Your task to perform on an android device: remove spam from my inbox in the gmail app Image 0: 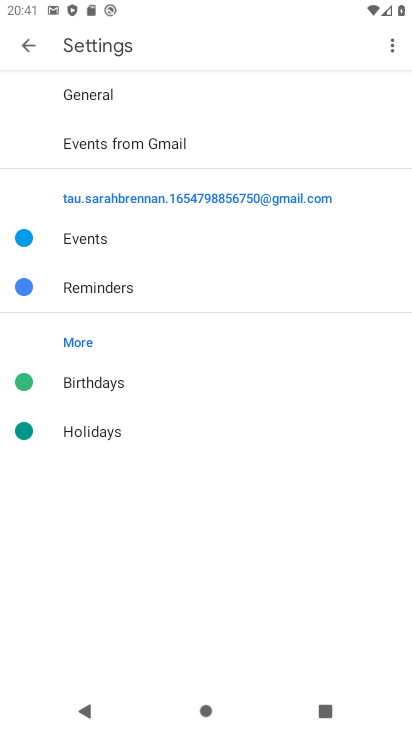
Step 0: press home button
Your task to perform on an android device: remove spam from my inbox in the gmail app Image 1: 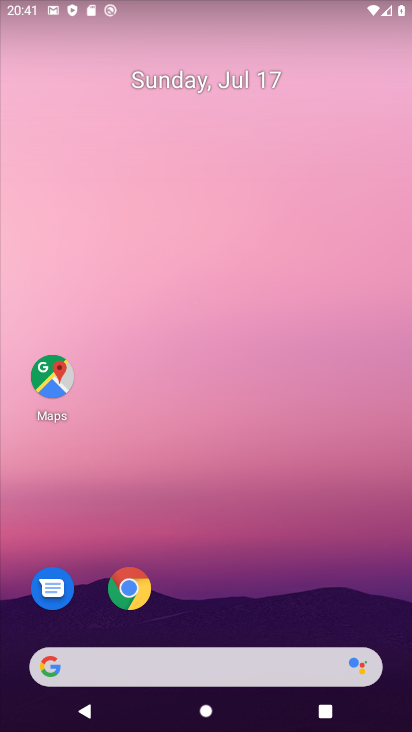
Step 1: drag from (235, 534) to (256, 27)
Your task to perform on an android device: remove spam from my inbox in the gmail app Image 2: 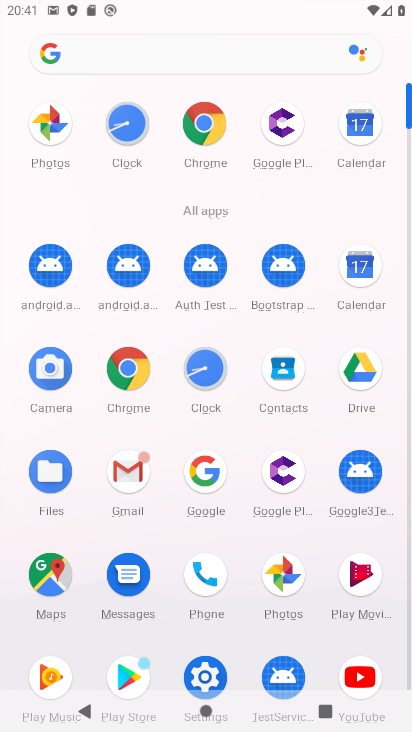
Step 2: press home button
Your task to perform on an android device: remove spam from my inbox in the gmail app Image 3: 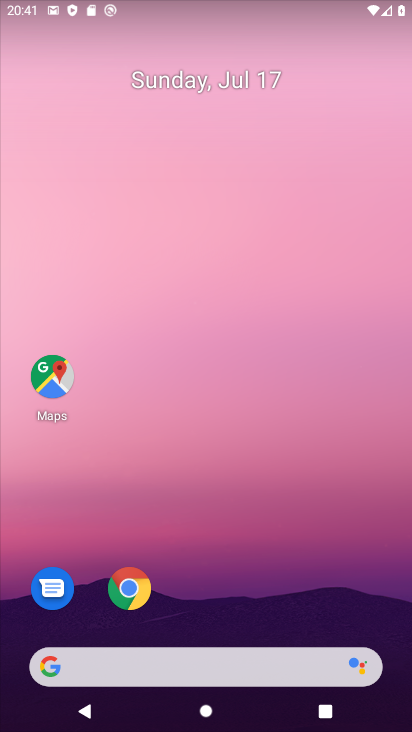
Step 3: drag from (338, 624) to (394, 3)
Your task to perform on an android device: remove spam from my inbox in the gmail app Image 4: 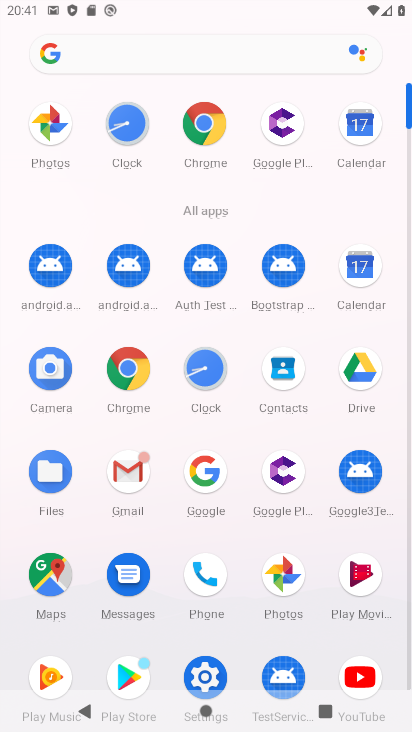
Step 4: click (137, 497)
Your task to perform on an android device: remove spam from my inbox in the gmail app Image 5: 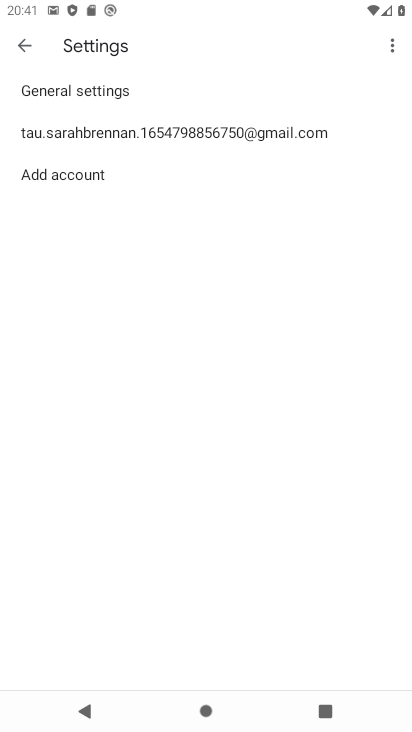
Step 5: click (19, 42)
Your task to perform on an android device: remove spam from my inbox in the gmail app Image 6: 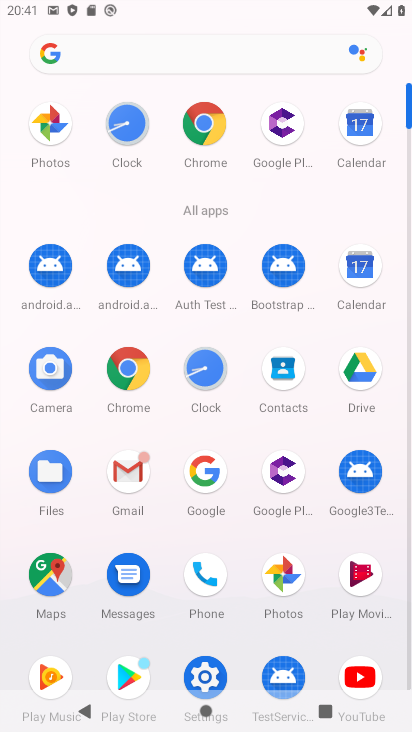
Step 6: click (117, 493)
Your task to perform on an android device: remove spam from my inbox in the gmail app Image 7: 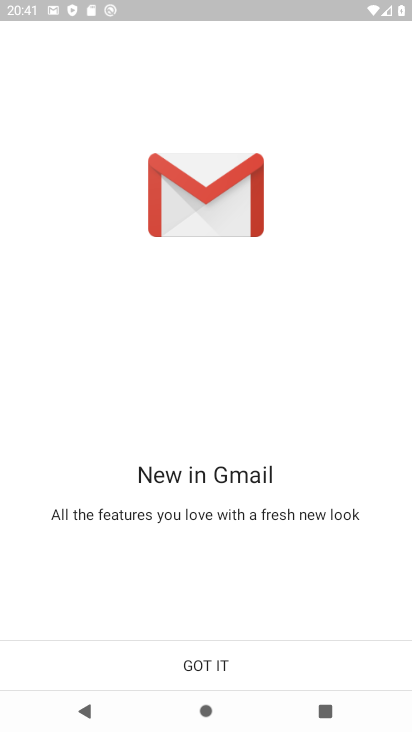
Step 7: click (212, 669)
Your task to perform on an android device: remove spam from my inbox in the gmail app Image 8: 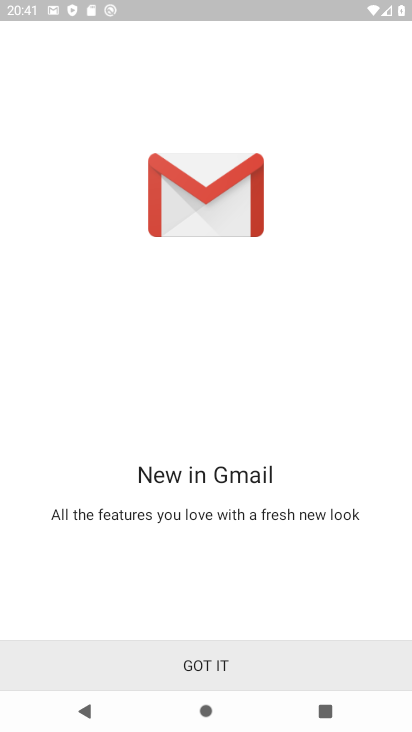
Step 8: click (212, 669)
Your task to perform on an android device: remove spam from my inbox in the gmail app Image 9: 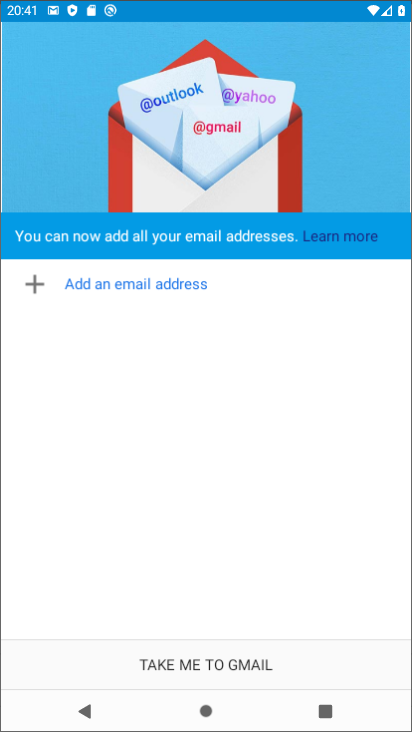
Step 9: click (212, 669)
Your task to perform on an android device: remove spam from my inbox in the gmail app Image 10: 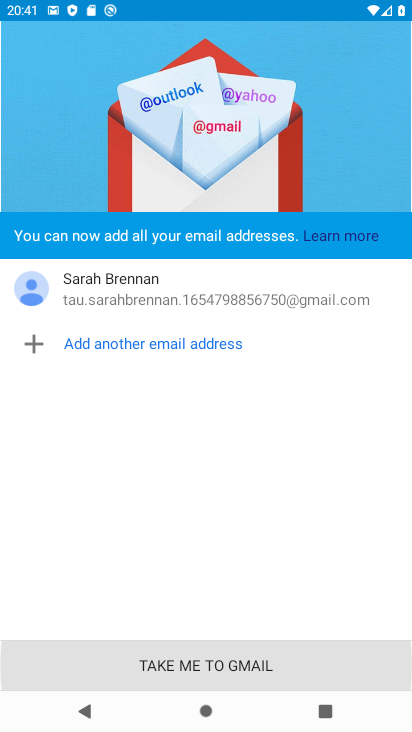
Step 10: click (212, 669)
Your task to perform on an android device: remove spam from my inbox in the gmail app Image 11: 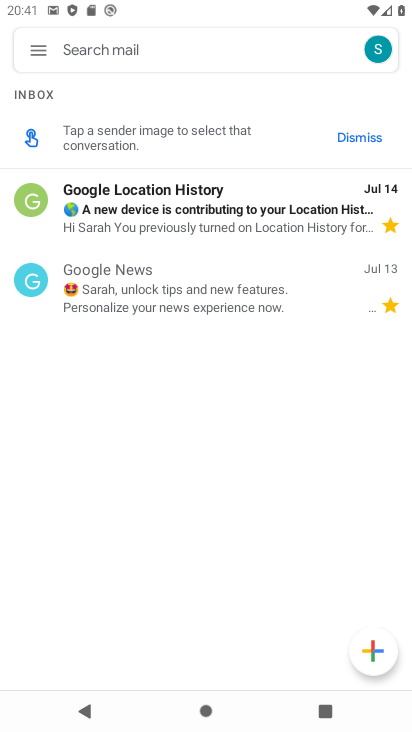
Step 11: click (41, 56)
Your task to perform on an android device: remove spam from my inbox in the gmail app Image 12: 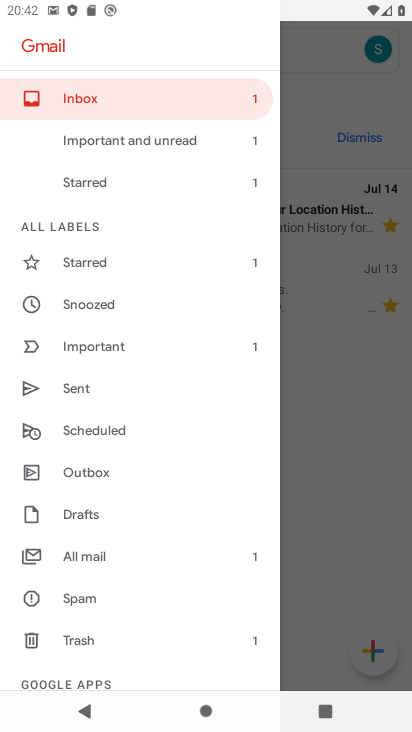
Step 12: click (84, 592)
Your task to perform on an android device: remove spam from my inbox in the gmail app Image 13: 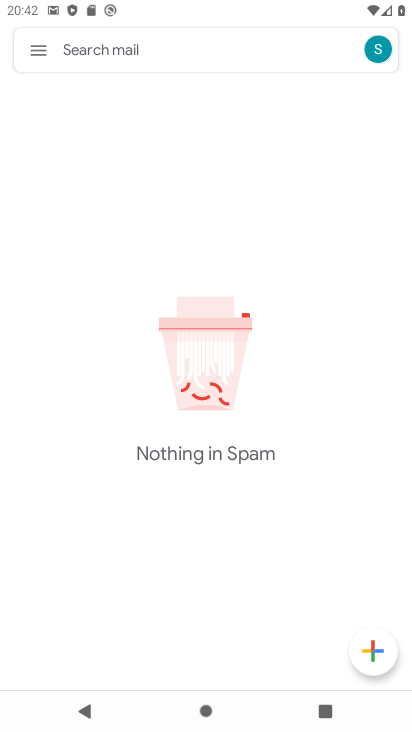
Step 13: task complete